Your task to perform on an android device: toggle notifications settings in the gmail app Image 0: 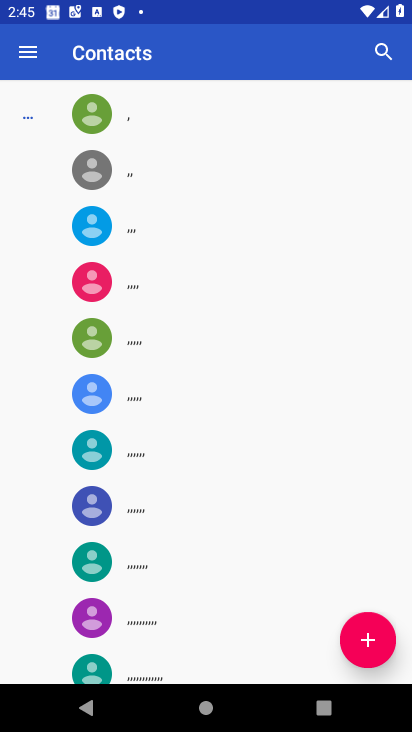
Step 0: press home button
Your task to perform on an android device: toggle notifications settings in the gmail app Image 1: 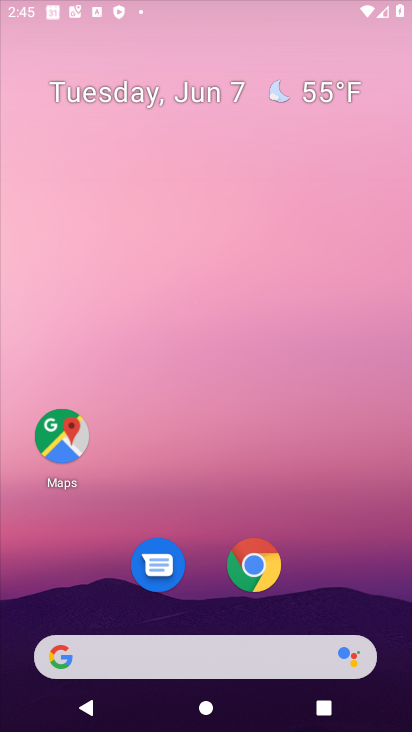
Step 1: drag from (279, 652) to (267, 24)
Your task to perform on an android device: toggle notifications settings in the gmail app Image 2: 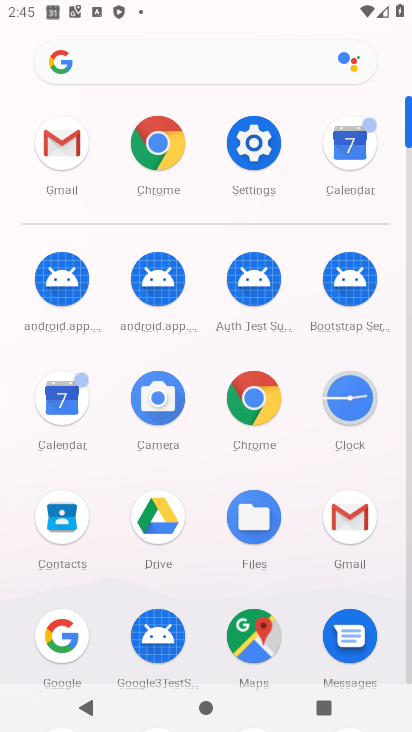
Step 2: click (342, 523)
Your task to perform on an android device: toggle notifications settings in the gmail app Image 3: 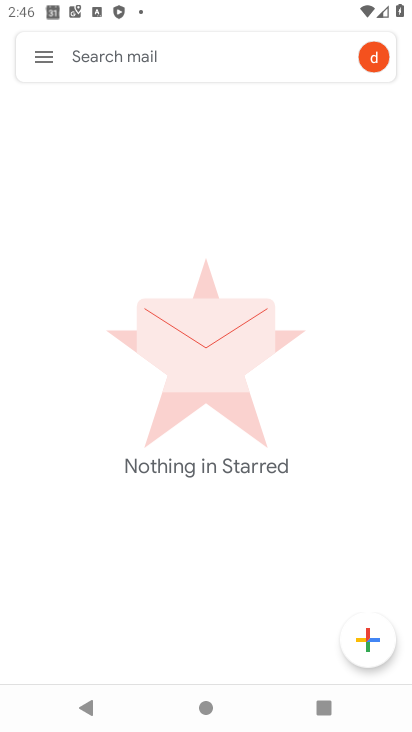
Step 3: click (41, 54)
Your task to perform on an android device: toggle notifications settings in the gmail app Image 4: 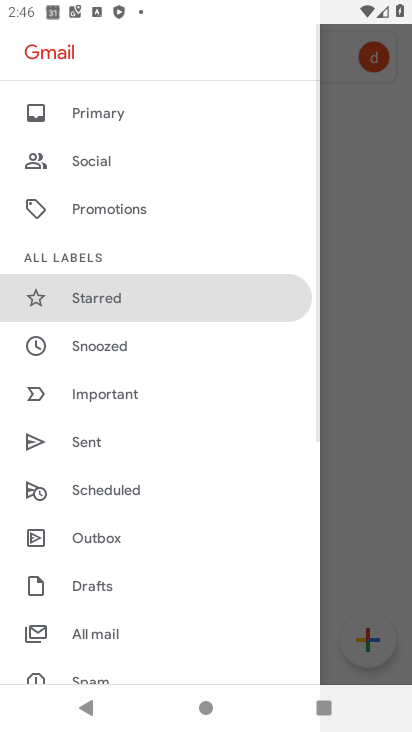
Step 4: drag from (132, 602) to (225, 190)
Your task to perform on an android device: toggle notifications settings in the gmail app Image 5: 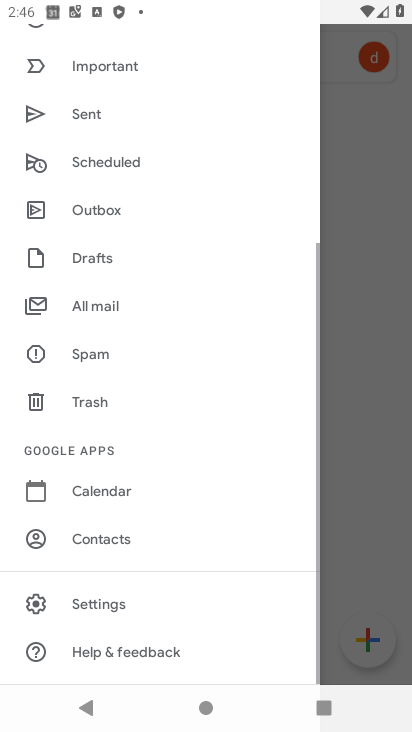
Step 5: click (147, 602)
Your task to perform on an android device: toggle notifications settings in the gmail app Image 6: 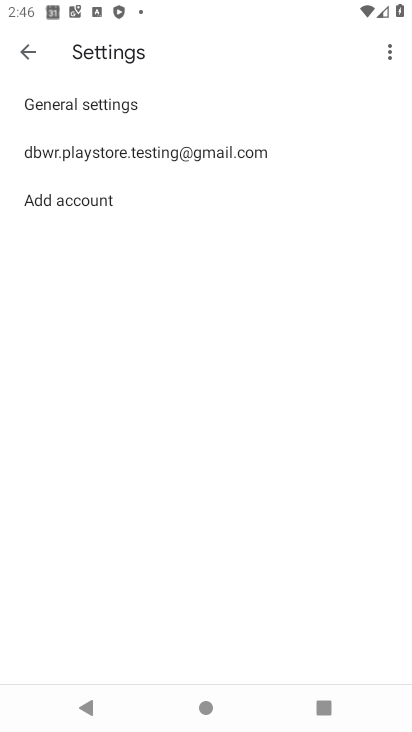
Step 6: click (168, 170)
Your task to perform on an android device: toggle notifications settings in the gmail app Image 7: 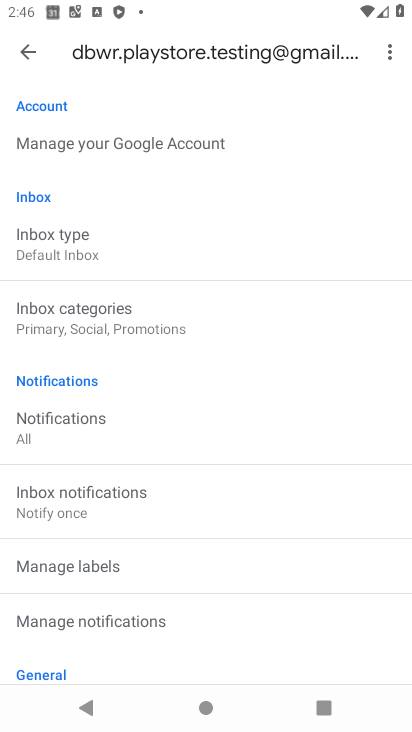
Step 7: click (181, 619)
Your task to perform on an android device: toggle notifications settings in the gmail app Image 8: 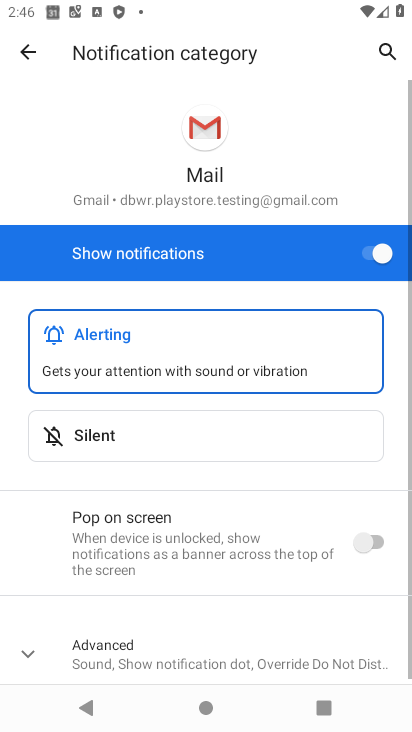
Step 8: drag from (236, 594) to (238, 302)
Your task to perform on an android device: toggle notifications settings in the gmail app Image 9: 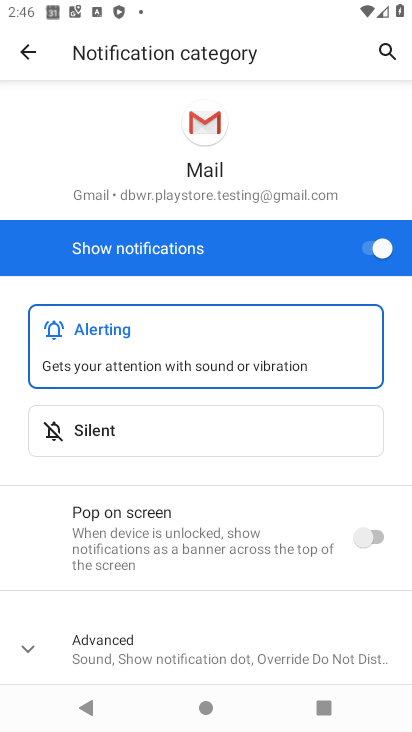
Step 9: click (380, 240)
Your task to perform on an android device: toggle notifications settings in the gmail app Image 10: 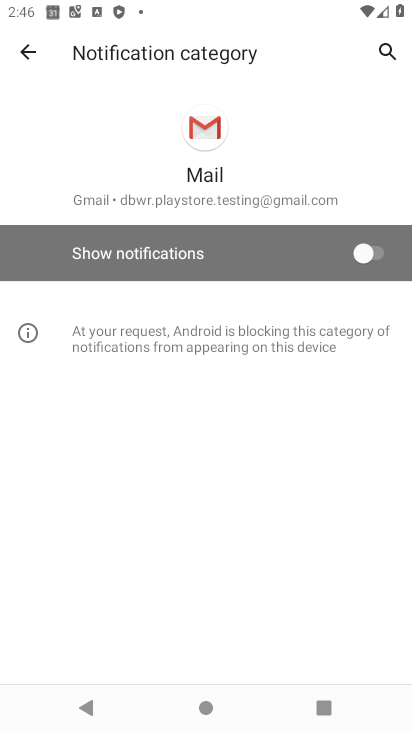
Step 10: task complete